Your task to perform on an android device: open wifi settings Image 0: 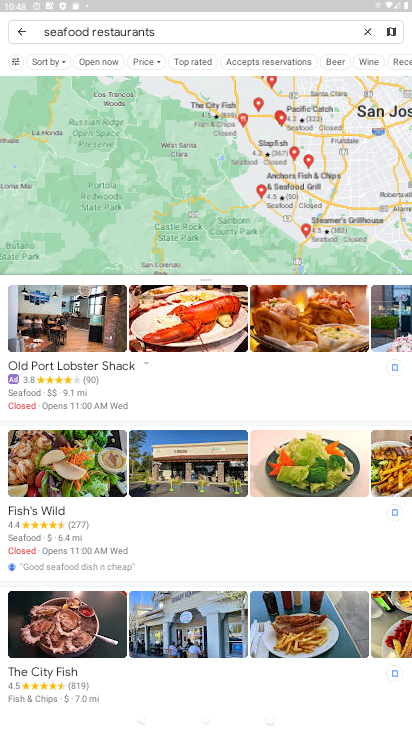
Step 0: press home button
Your task to perform on an android device: open wifi settings Image 1: 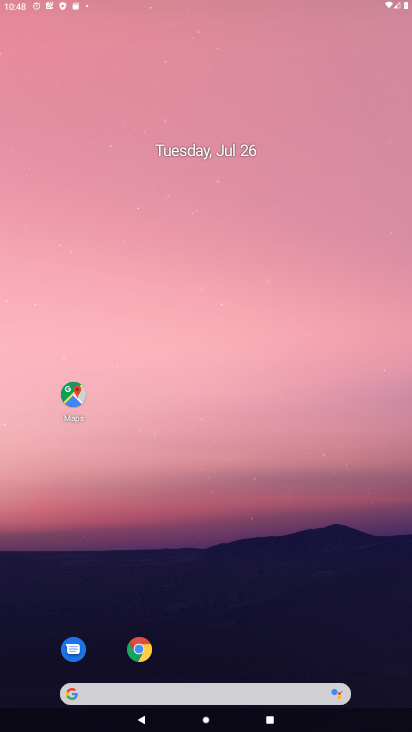
Step 1: drag from (180, 523) to (213, 110)
Your task to perform on an android device: open wifi settings Image 2: 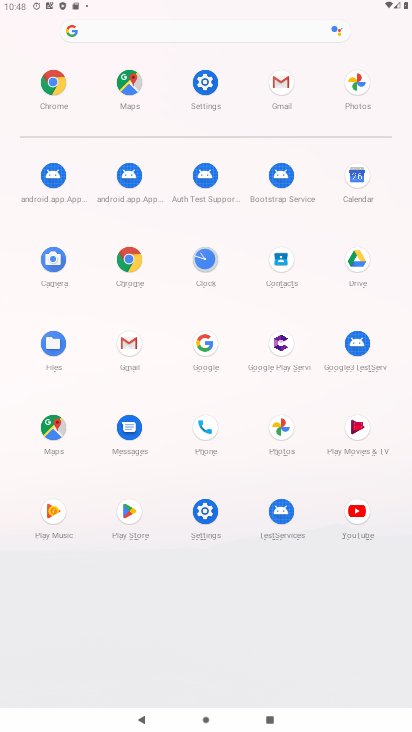
Step 2: click (206, 94)
Your task to perform on an android device: open wifi settings Image 3: 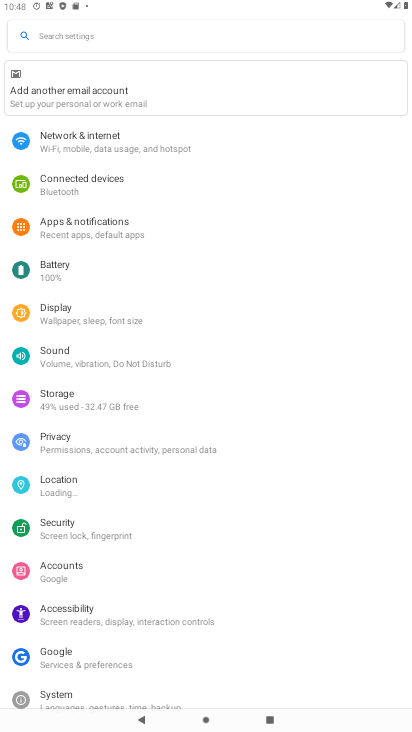
Step 3: click (83, 149)
Your task to perform on an android device: open wifi settings Image 4: 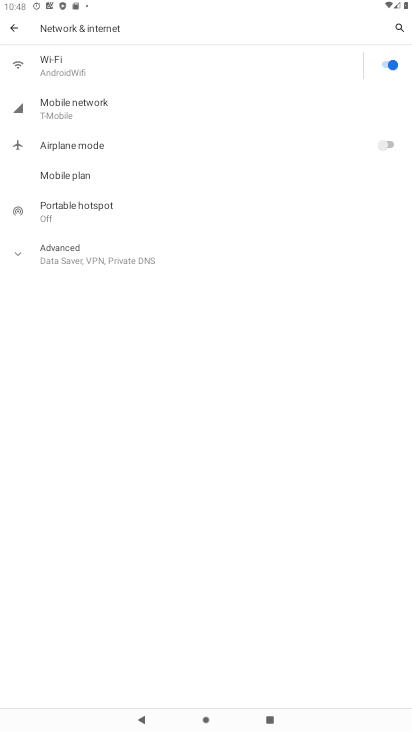
Step 4: click (93, 54)
Your task to perform on an android device: open wifi settings Image 5: 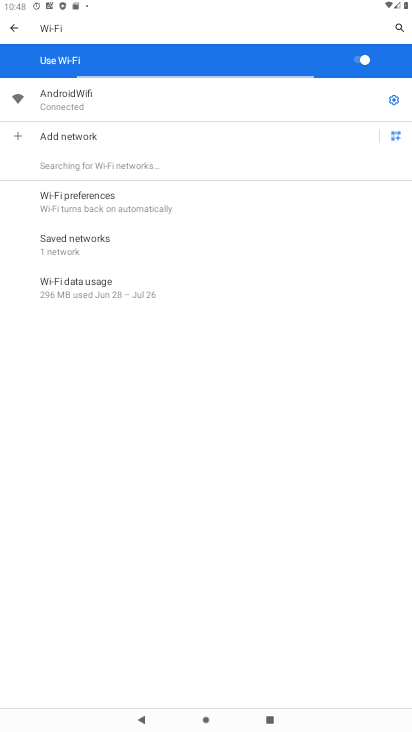
Step 5: click (398, 96)
Your task to perform on an android device: open wifi settings Image 6: 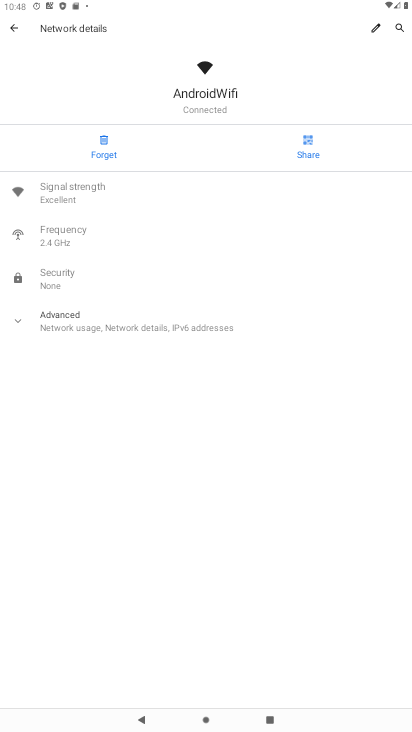
Step 6: task complete